Your task to perform on an android device: Go to CNN.com Image 0: 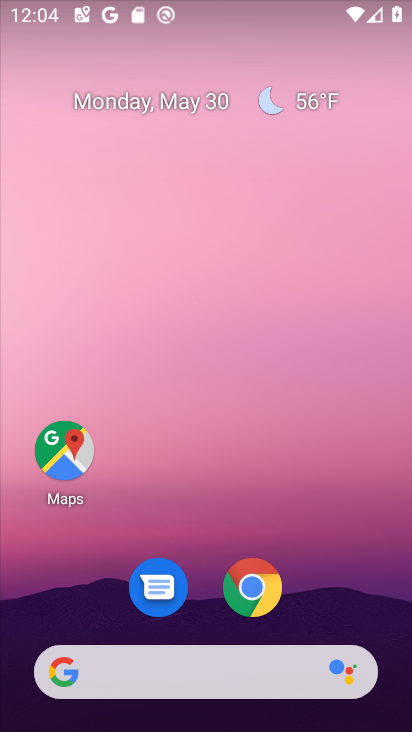
Step 0: click (265, 588)
Your task to perform on an android device: Go to CNN.com Image 1: 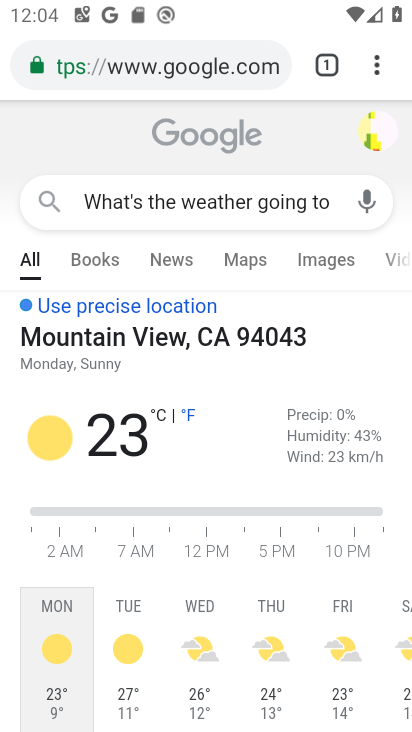
Step 1: click (226, 71)
Your task to perform on an android device: Go to CNN.com Image 2: 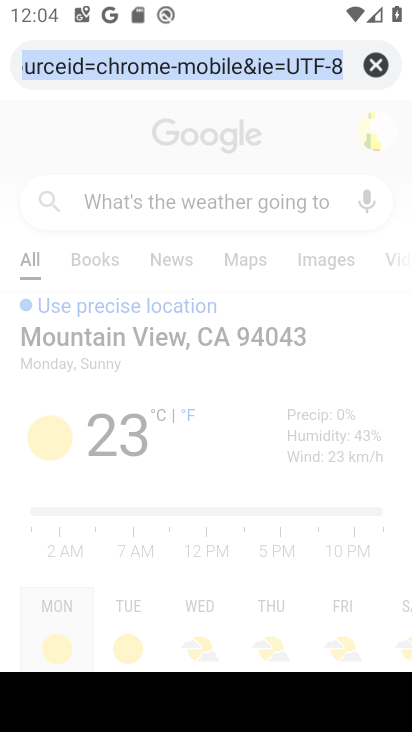
Step 2: type "cnn.com"
Your task to perform on an android device: Go to CNN.com Image 3: 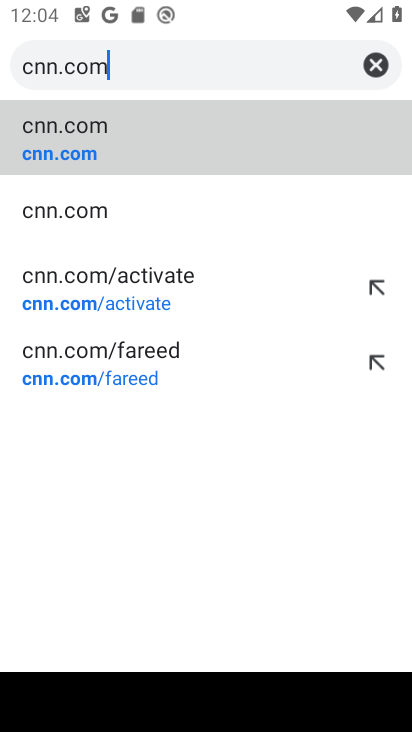
Step 3: click (84, 151)
Your task to perform on an android device: Go to CNN.com Image 4: 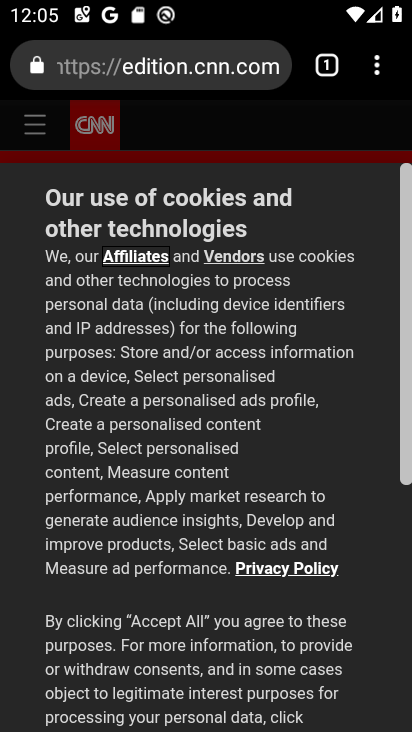
Step 4: task complete